Your task to perform on an android device: Clear all items from cart on bestbuy. Search for bose quietcomfort 35 on bestbuy, select the first entry, and add it to the cart. Image 0: 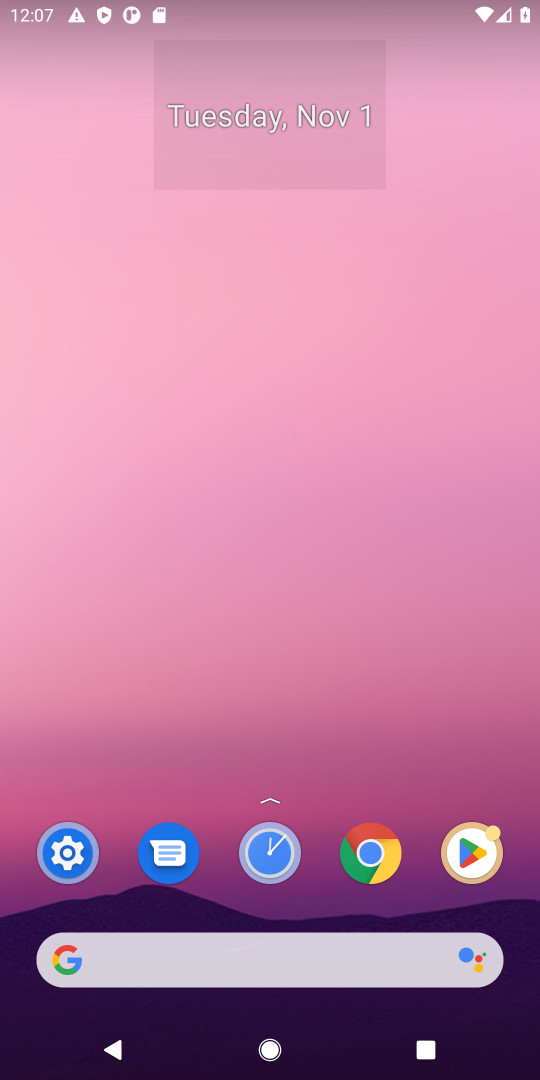
Step 0: click (189, 948)
Your task to perform on an android device: Clear all items from cart on bestbuy. Search for bose quietcomfort 35 on bestbuy, select the first entry, and add it to the cart. Image 1: 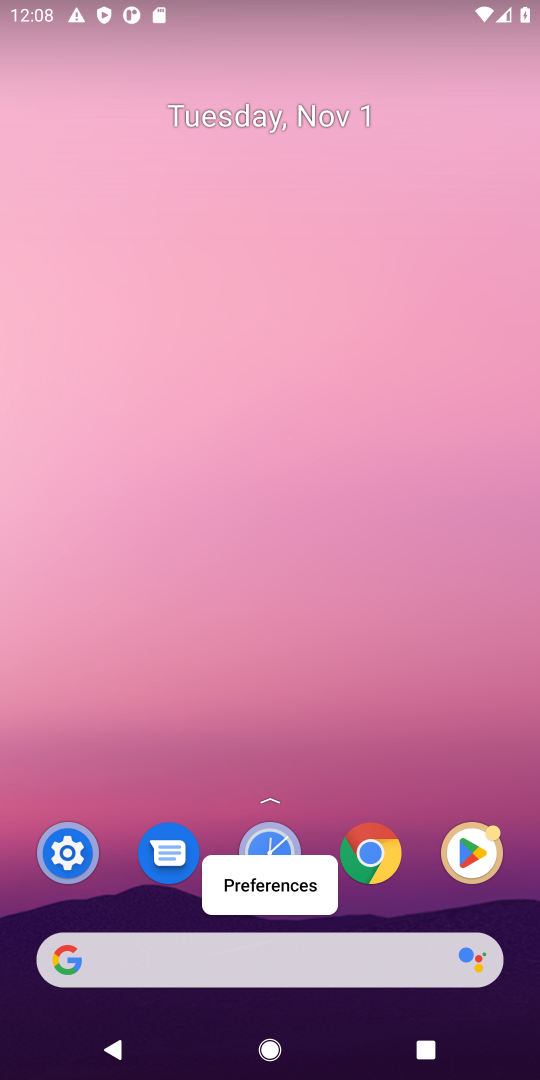
Step 1: click (236, 954)
Your task to perform on an android device: Clear all items from cart on bestbuy. Search for bose quietcomfort 35 on bestbuy, select the first entry, and add it to the cart. Image 2: 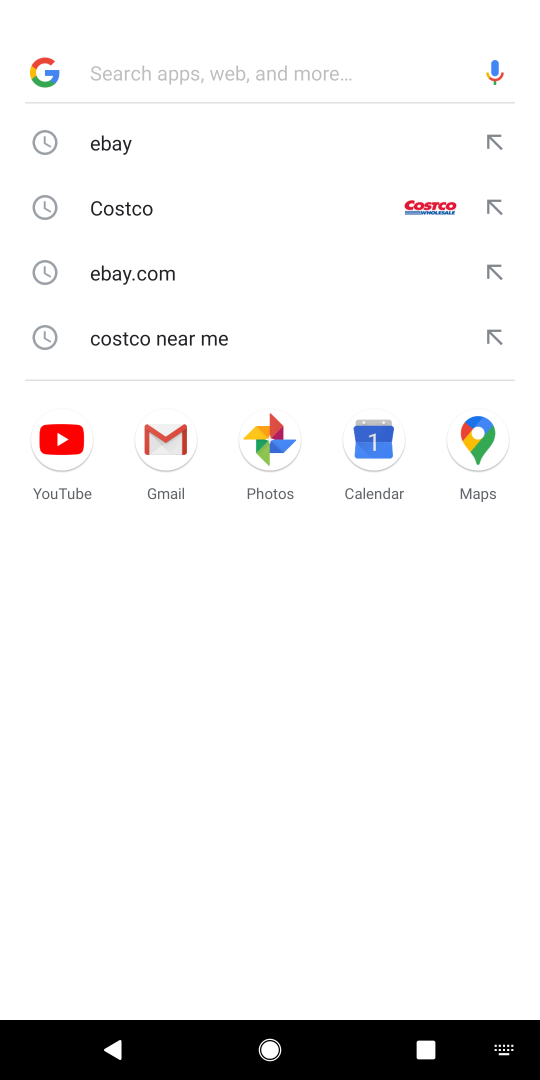
Step 2: type " bestbuy"
Your task to perform on an android device: Clear all items from cart on bestbuy. Search for bose quietcomfort 35 on bestbuy, select the first entry, and add it to the cart. Image 3: 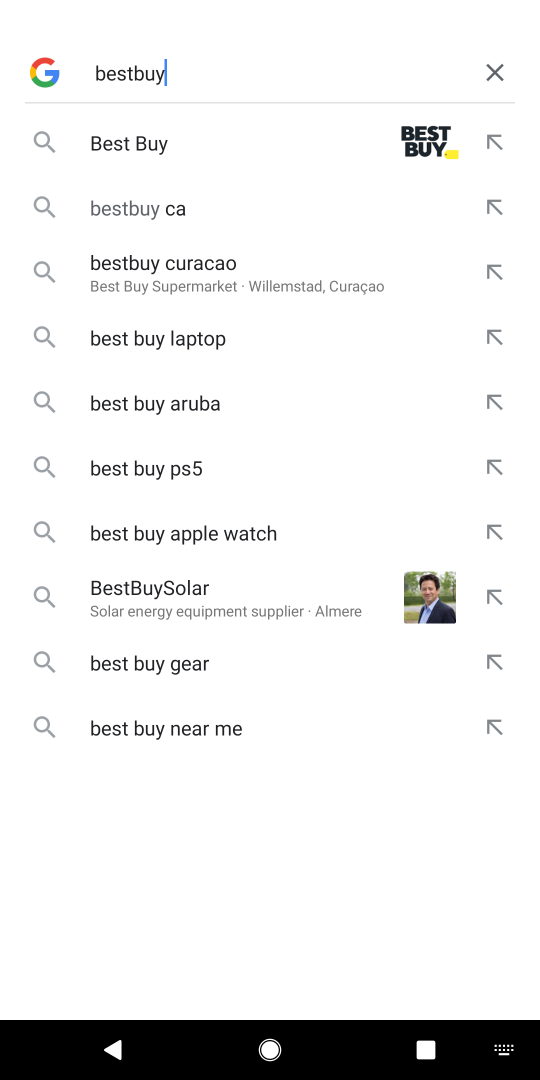
Step 3: type ""
Your task to perform on an android device: Clear all items from cart on bestbuy. Search for bose quietcomfort 35 on bestbuy, select the first entry, and add it to the cart. Image 4: 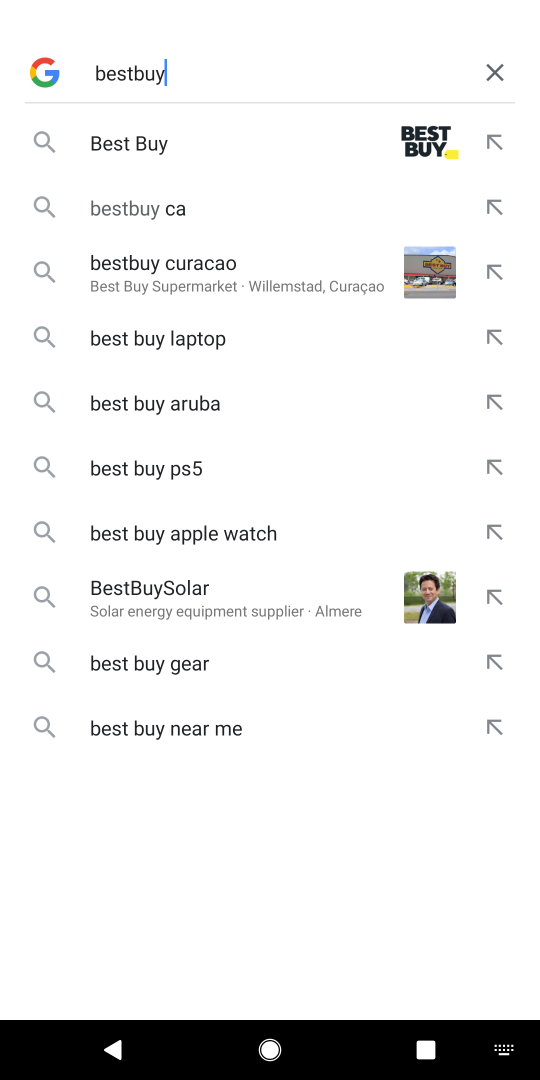
Step 4: type ""
Your task to perform on an android device: Clear all items from cart on bestbuy. Search for bose quietcomfort 35 on bestbuy, select the first entry, and add it to the cart. Image 5: 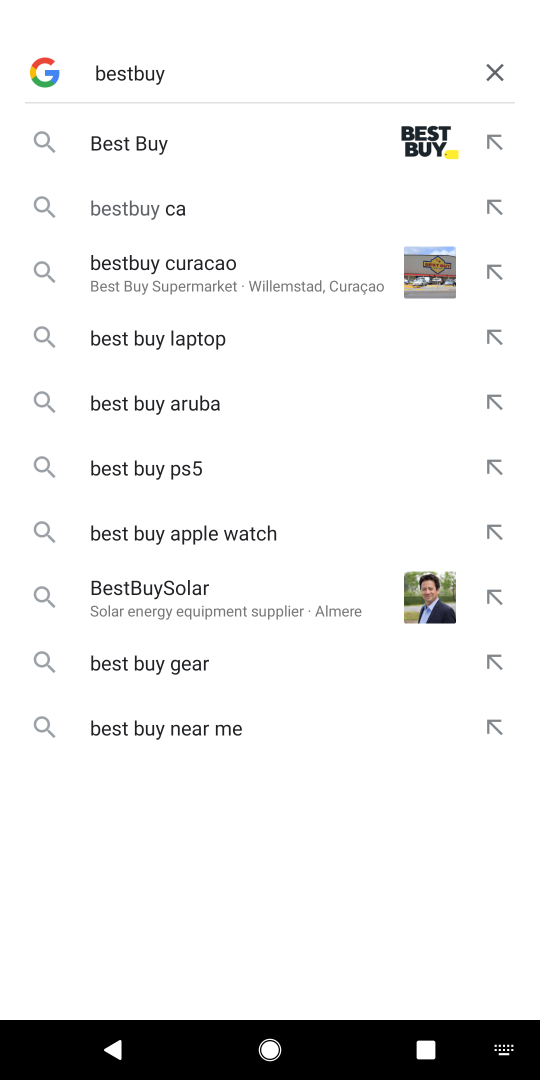
Step 5: press enter
Your task to perform on an android device: Clear all items from cart on bestbuy. Search for bose quietcomfort 35 on bestbuy, select the first entry, and add it to the cart. Image 6: 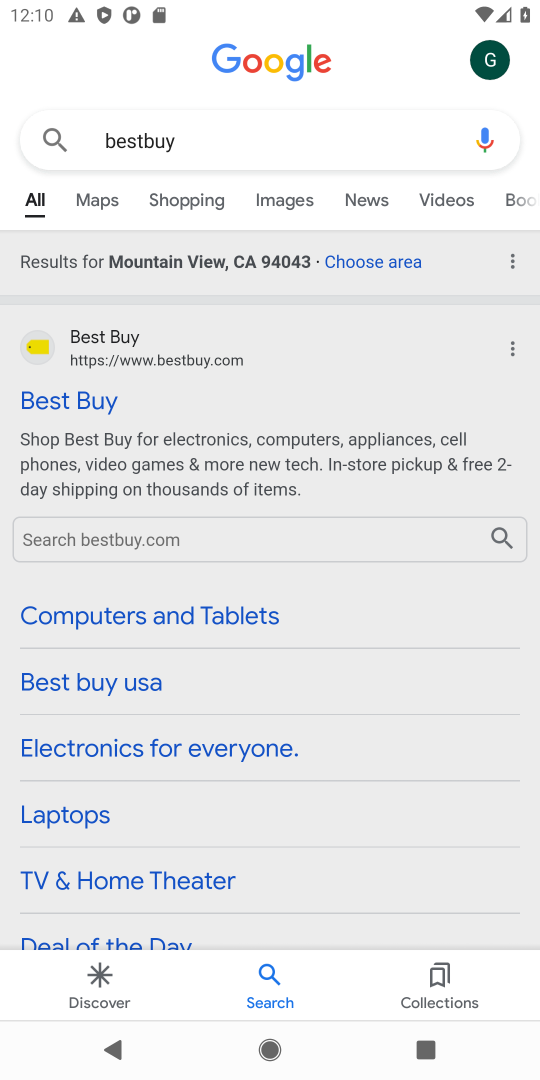
Step 6: click (135, 371)
Your task to perform on an android device: Clear all items from cart on bestbuy. Search for bose quietcomfort 35 on bestbuy, select the first entry, and add it to the cart. Image 7: 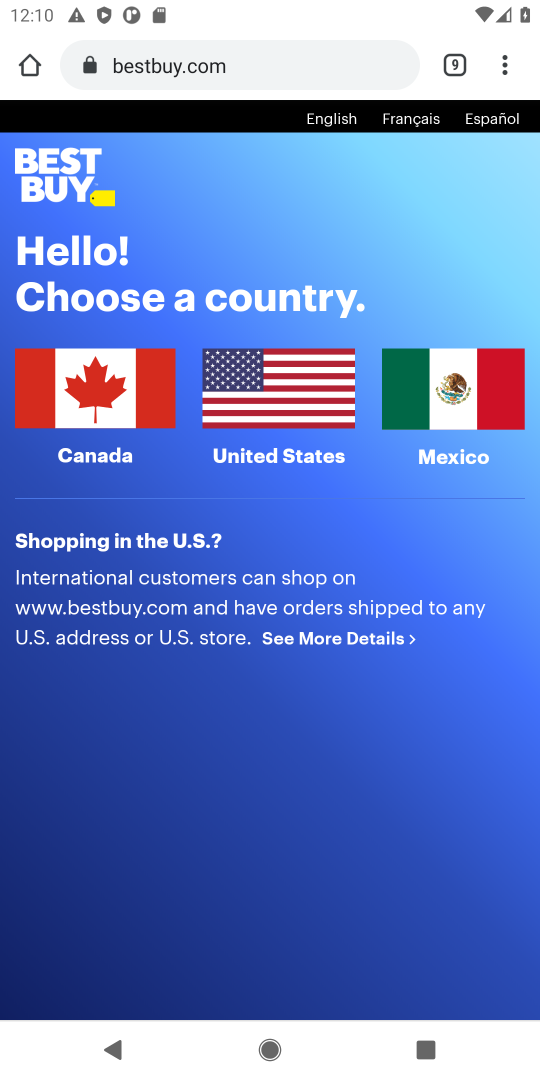
Step 7: click (253, 405)
Your task to perform on an android device: Clear all items from cart on bestbuy. Search for bose quietcomfort 35 on bestbuy, select the first entry, and add it to the cart. Image 8: 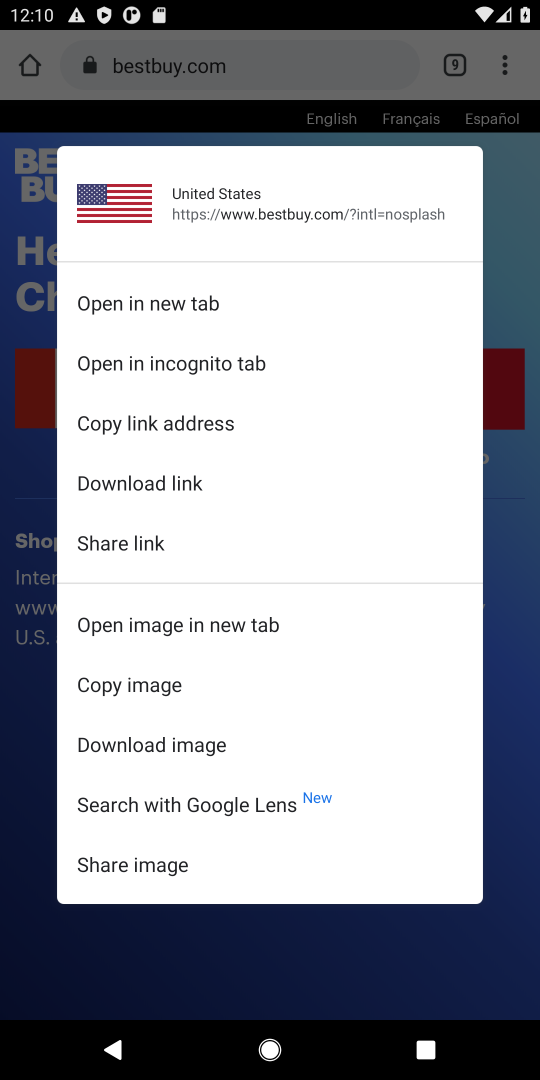
Step 8: click (505, 503)
Your task to perform on an android device: Clear all items from cart on bestbuy. Search for bose quietcomfort 35 on bestbuy, select the first entry, and add it to the cart. Image 9: 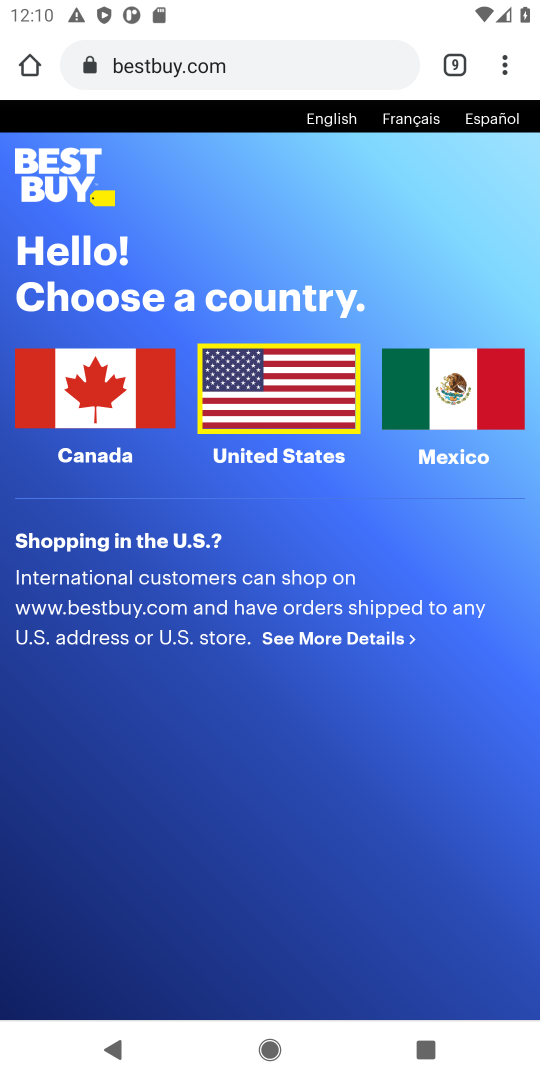
Step 9: click (275, 393)
Your task to perform on an android device: Clear all items from cart on bestbuy. Search for bose quietcomfort 35 on bestbuy, select the first entry, and add it to the cart. Image 10: 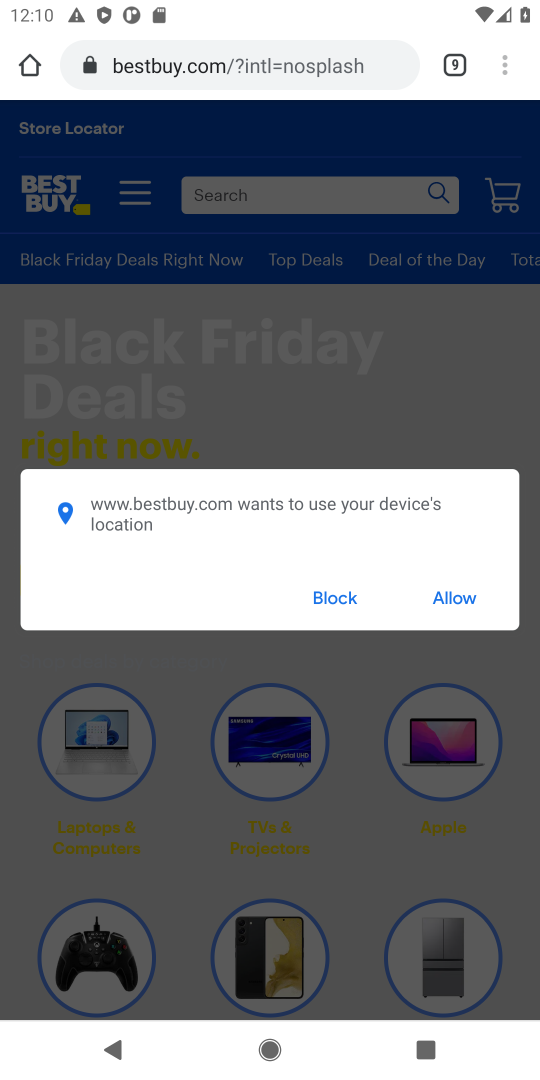
Step 10: click (343, 593)
Your task to perform on an android device: Clear all items from cart on bestbuy. Search for bose quietcomfort 35 on bestbuy, select the first entry, and add it to the cart. Image 11: 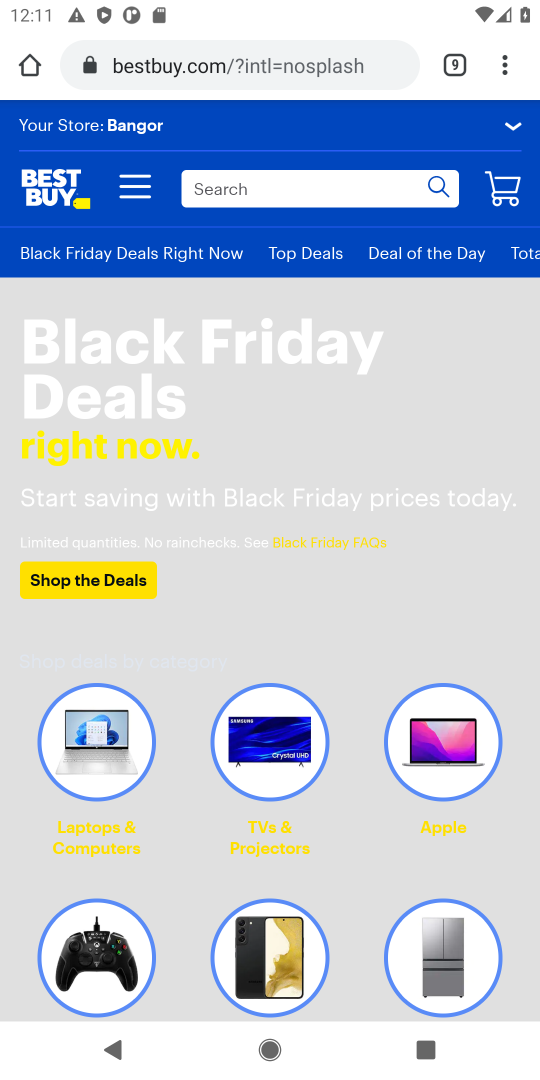
Step 11: click (295, 193)
Your task to perform on an android device: Clear all items from cart on bestbuy. Search for bose quietcomfort 35 on bestbuy, select the first entry, and add it to the cart. Image 12: 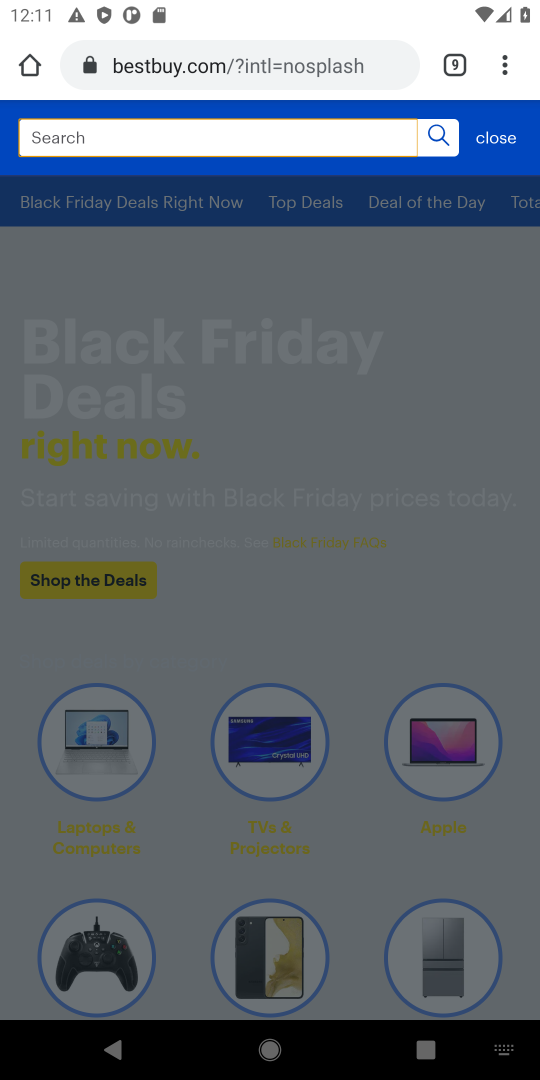
Step 12: click (255, 156)
Your task to perform on an android device: Clear all items from cart on bestbuy. Search for bose quietcomfort 35 on bestbuy, select the first entry, and add it to the cart. Image 13: 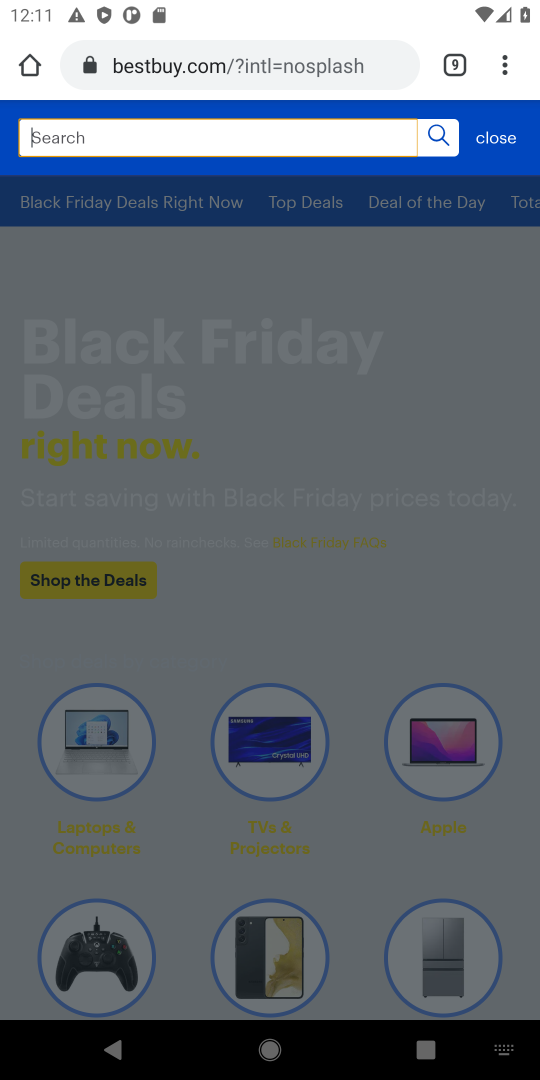
Step 13: click (241, 148)
Your task to perform on an android device: Clear all items from cart on bestbuy. Search for bose quietcomfort 35 on bestbuy, select the first entry, and add it to the cart. Image 14: 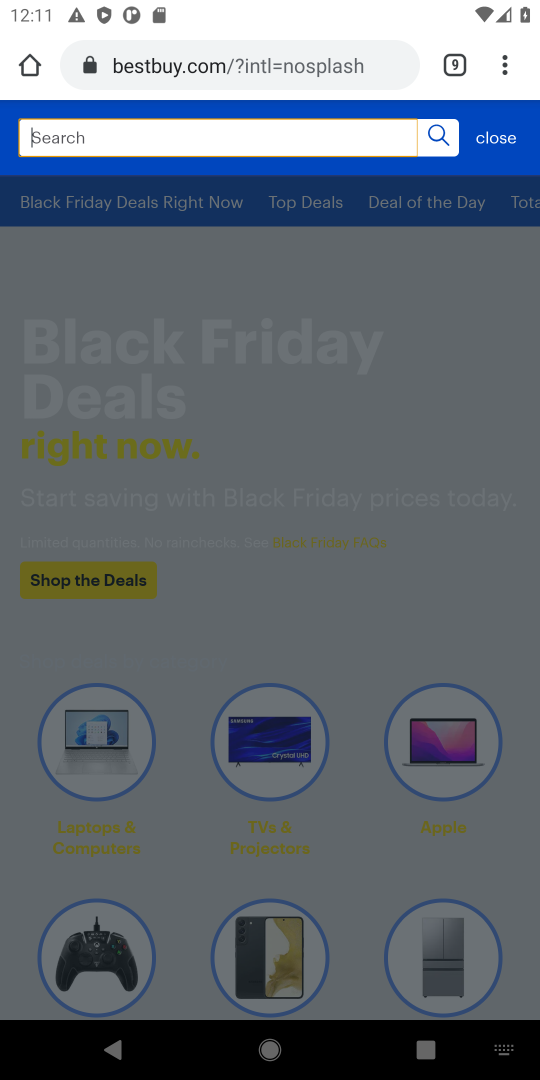
Step 14: click (241, 148)
Your task to perform on an android device: Clear all items from cart on bestbuy. Search for bose quietcomfort 35 on bestbuy, select the first entry, and add it to the cart. Image 15: 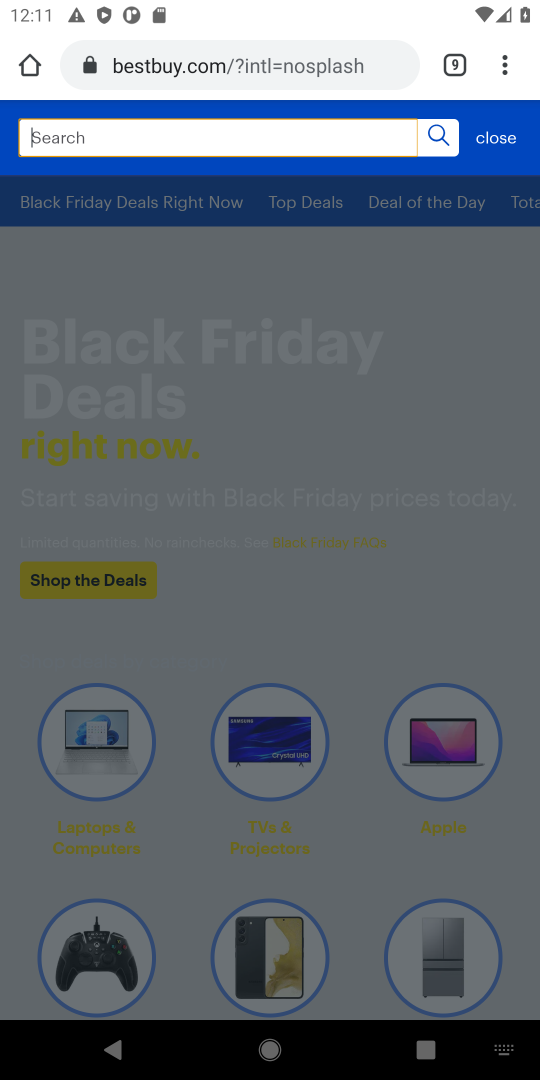
Step 15: click (241, 148)
Your task to perform on an android device: Clear all items from cart on bestbuy. Search for bose quietcomfort 35 on bestbuy, select the first entry, and add it to the cart. Image 16: 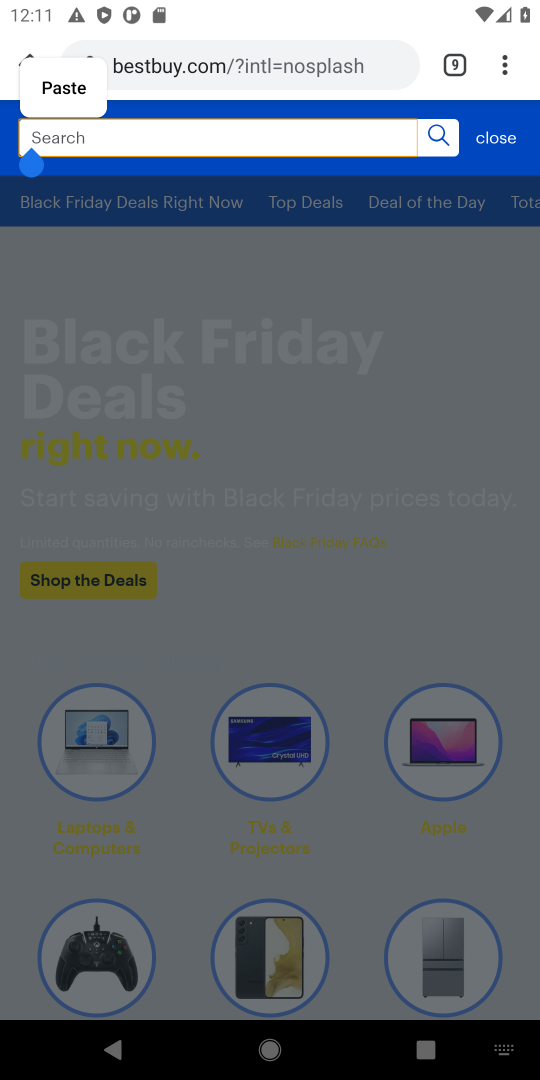
Step 16: click (229, 144)
Your task to perform on an android device: Clear all items from cart on bestbuy. Search for bose quietcomfort 35 on bestbuy, select the first entry, and add it to the cart. Image 17: 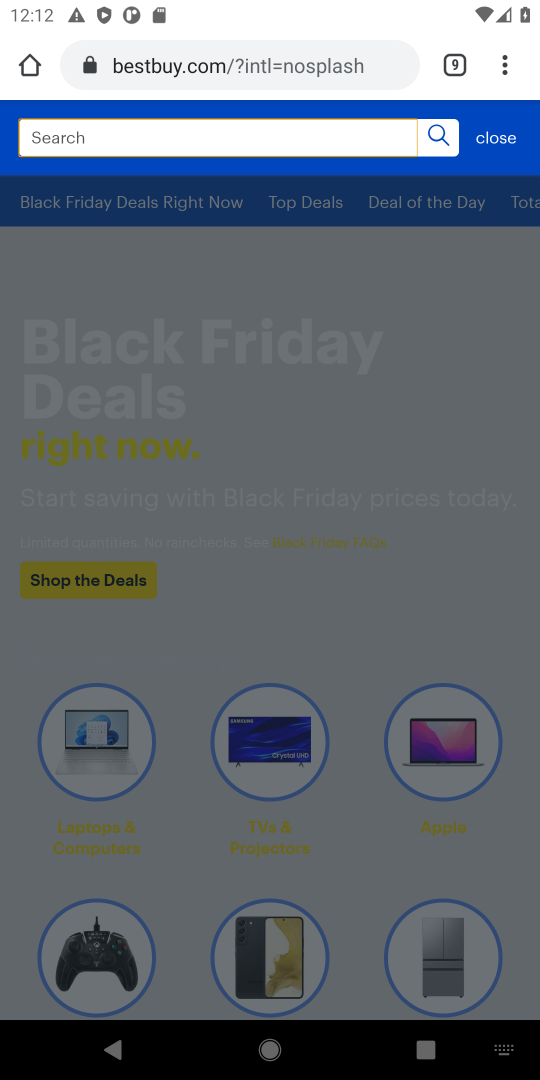
Step 17: type "bose quietcomfort 35"
Your task to perform on an android device: Clear all items from cart on bestbuy. Search for bose quietcomfort 35 on bestbuy, select the first entry, and add it to the cart. Image 18: 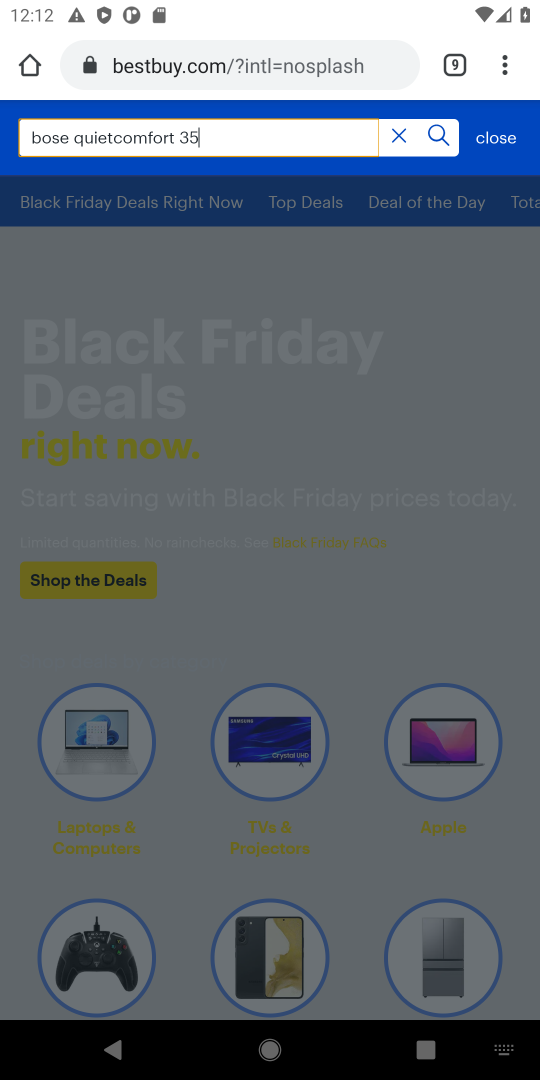
Step 18: press enter
Your task to perform on an android device: Clear all items from cart on bestbuy. Search for bose quietcomfort 35 on bestbuy, select the first entry, and add it to the cart. Image 19: 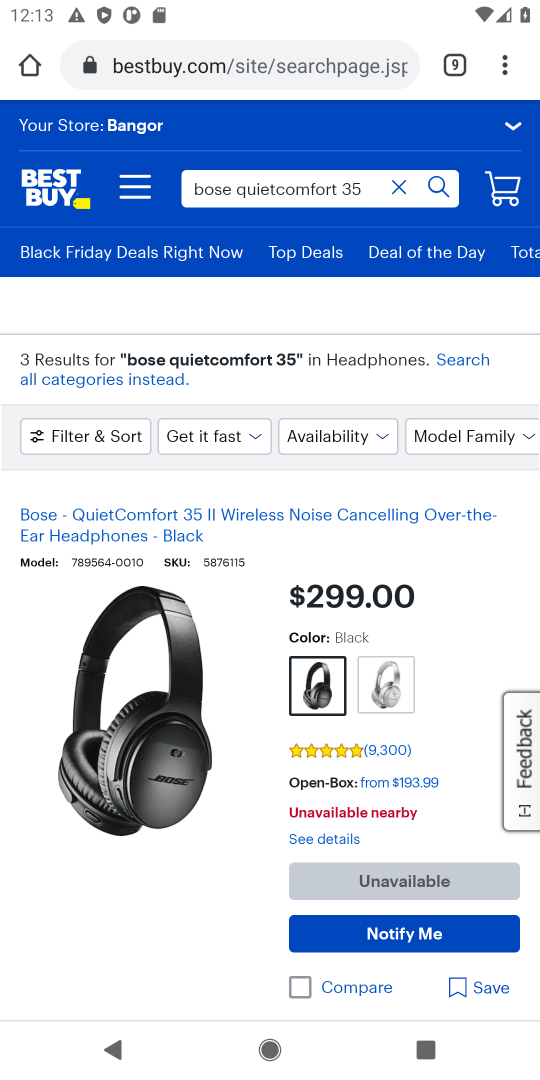
Step 19: drag from (441, 763) to (470, 565)
Your task to perform on an android device: Clear all items from cart on bestbuy. Search for bose quietcomfort 35 on bestbuy, select the first entry, and add it to the cart. Image 20: 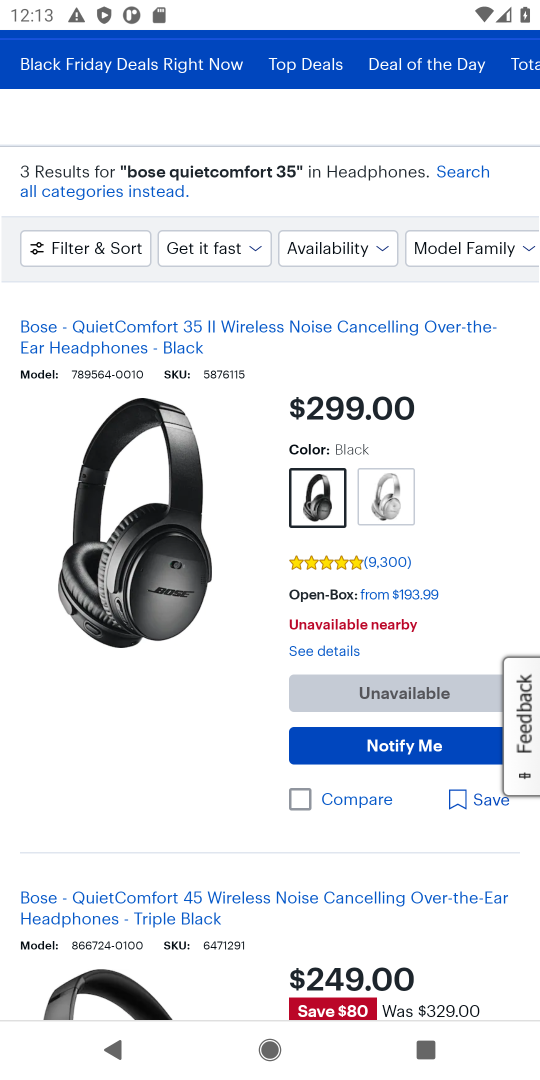
Step 20: drag from (487, 563) to (504, 371)
Your task to perform on an android device: Clear all items from cart on bestbuy. Search for bose quietcomfort 35 on bestbuy, select the first entry, and add it to the cart. Image 21: 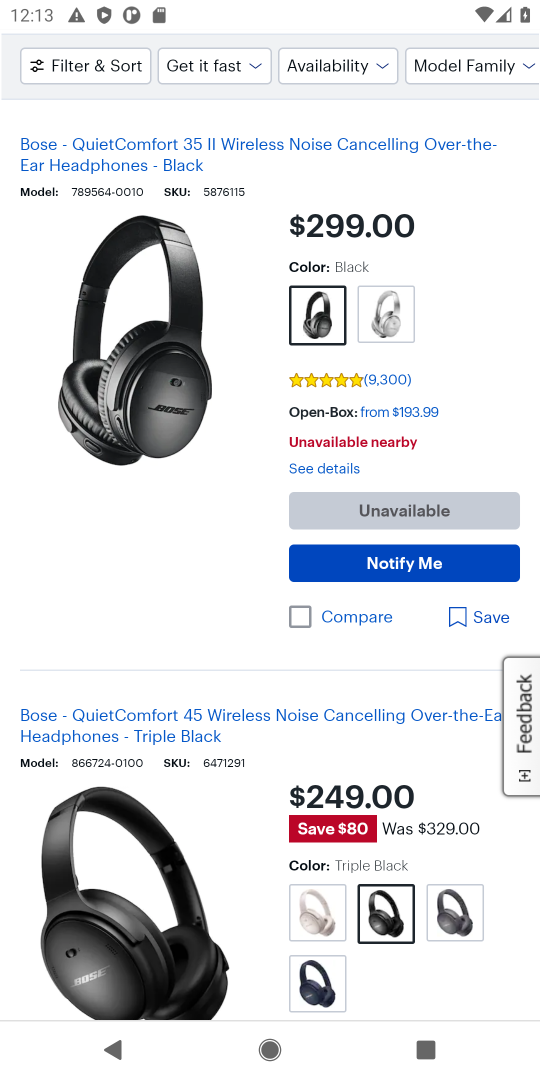
Step 21: click (316, 392)
Your task to perform on an android device: Clear all items from cart on bestbuy. Search for bose quietcomfort 35 on bestbuy, select the first entry, and add it to the cart. Image 22: 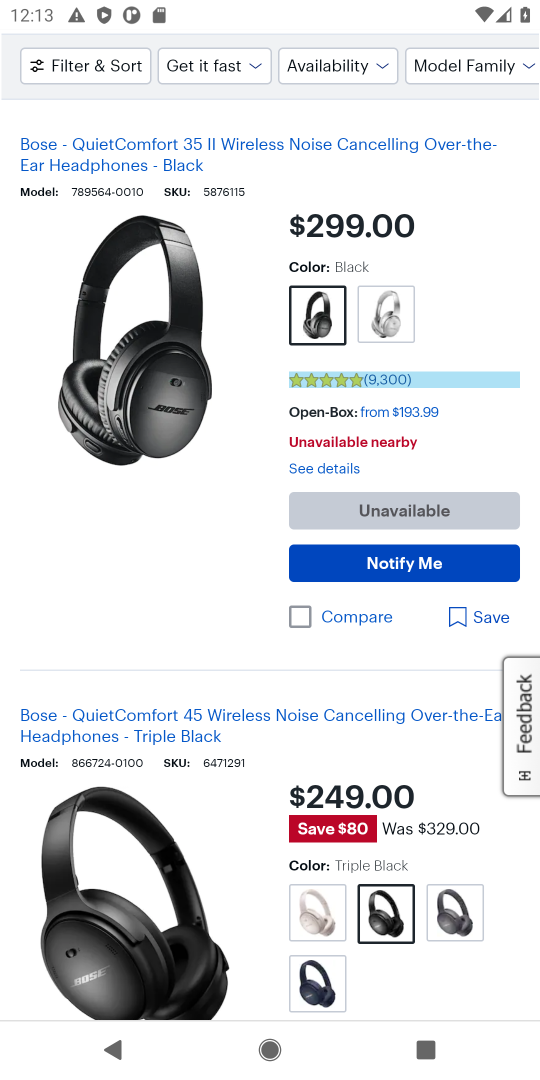
Step 22: click (208, 452)
Your task to perform on an android device: Clear all items from cart on bestbuy. Search for bose quietcomfort 35 on bestbuy, select the first entry, and add it to the cart. Image 23: 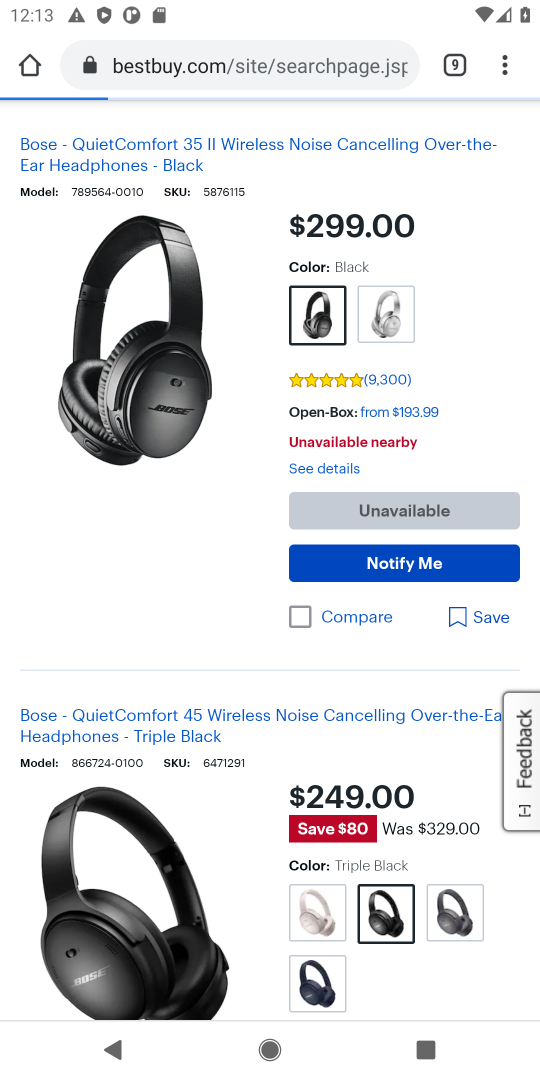
Step 23: click (142, 417)
Your task to perform on an android device: Clear all items from cart on bestbuy. Search for bose quietcomfort 35 on bestbuy, select the first entry, and add it to the cart. Image 24: 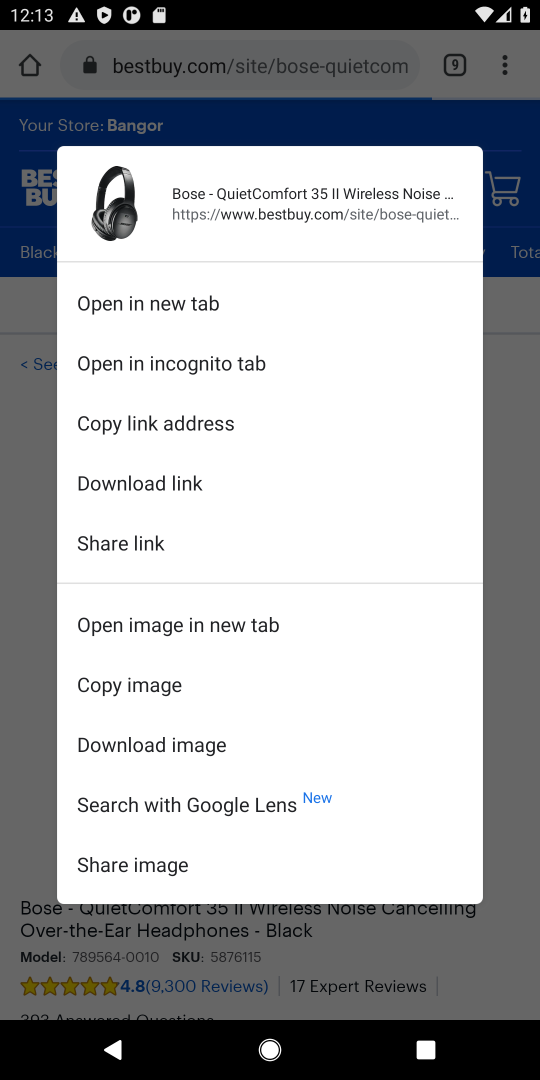
Step 24: click (527, 336)
Your task to perform on an android device: Clear all items from cart on bestbuy. Search for bose quietcomfort 35 on bestbuy, select the first entry, and add it to the cart. Image 25: 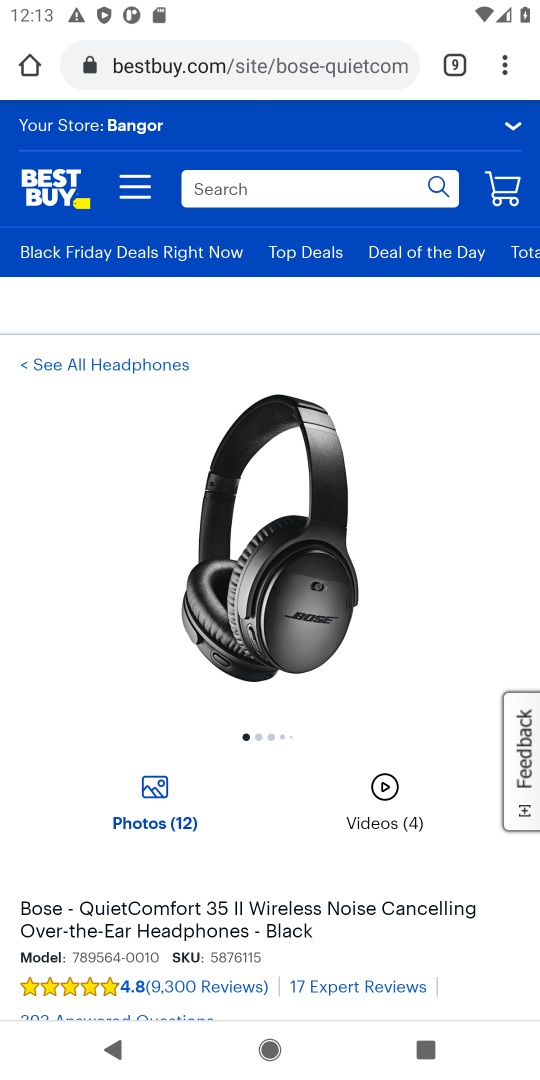
Step 25: task complete